Your task to perform on an android device: Is it going to rain today? Image 0: 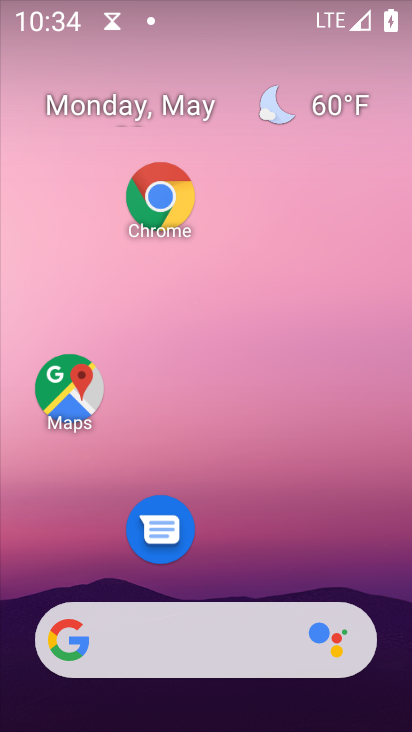
Step 0: drag from (265, 539) to (227, 33)
Your task to perform on an android device: Is it going to rain today? Image 1: 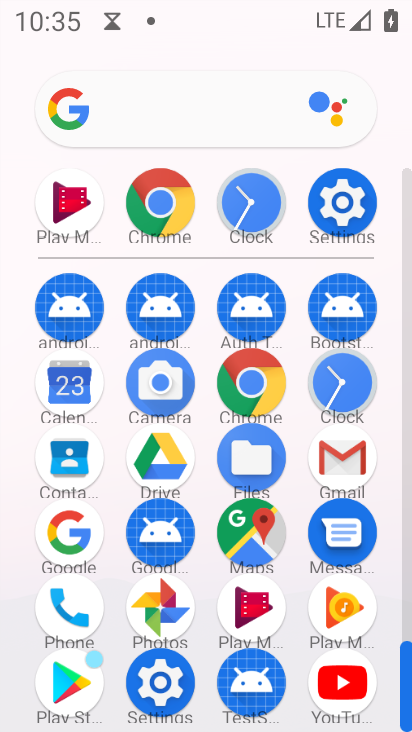
Step 1: click (67, 535)
Your task to perform on an android device: Is it going to rain today? Image 2: 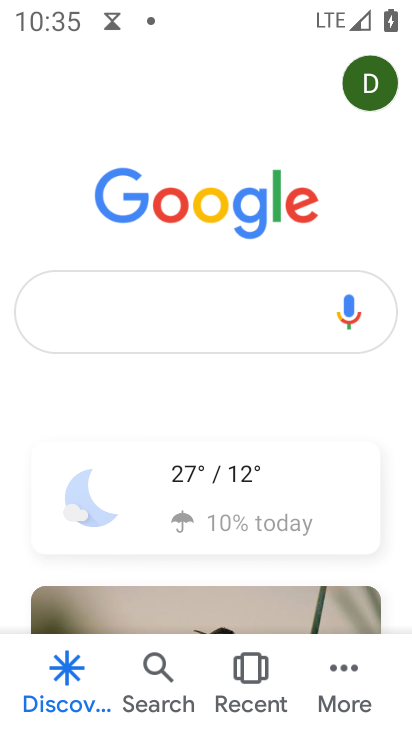
Step 2: click (159, 313)
Your task to perform on an android device: Is it going to rain today? Image 3: 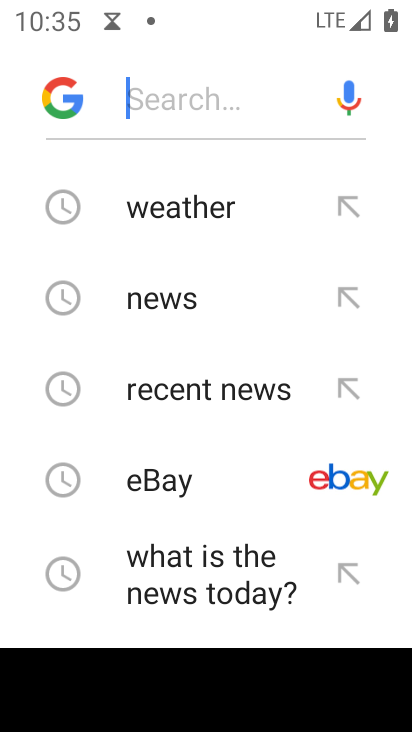
Step 3: click (149, 207)
Your task to perform on an android device: Is it going to rain today? Image 4: 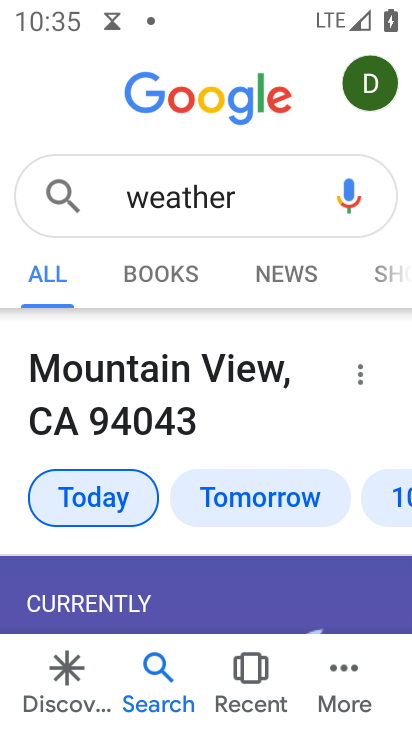
Step 4: task complete